Your task to perform on an android device: all mails in gmail Image 0: 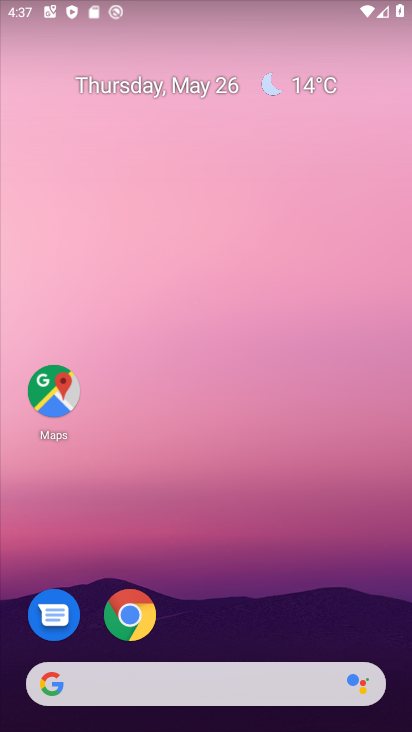
Step 0: drag from (267, 485) to (292, 144)
Your task to perform on an android device: all mails in gmail Image 1: 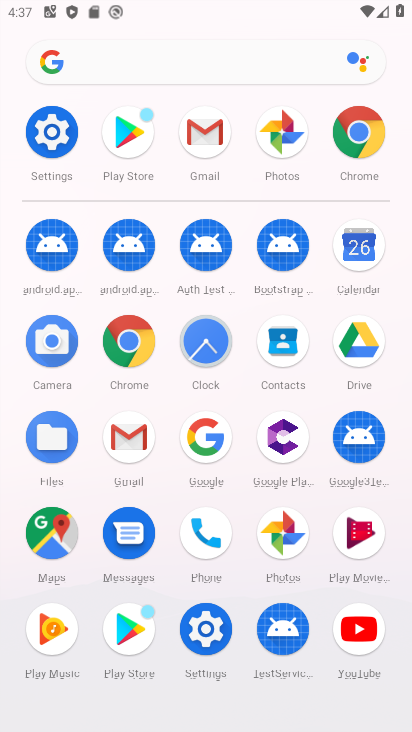
Step 1: click (211, 123)
Your task to perform on an android device: all mails in gmail Image 2: 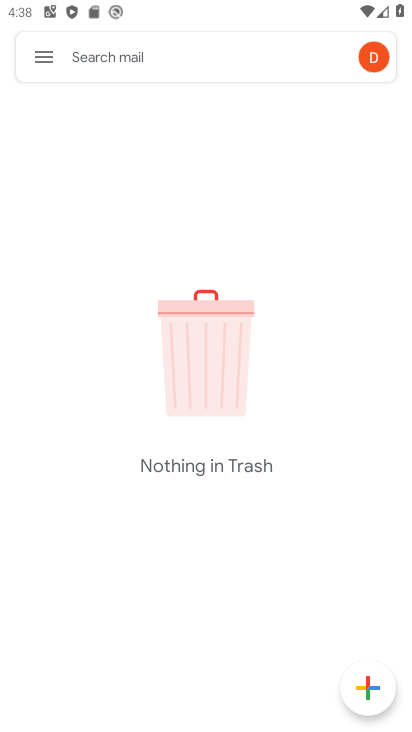
Step 2: click (48, 49)
Your task to perform on an android device: all mails in gmail Image 3: 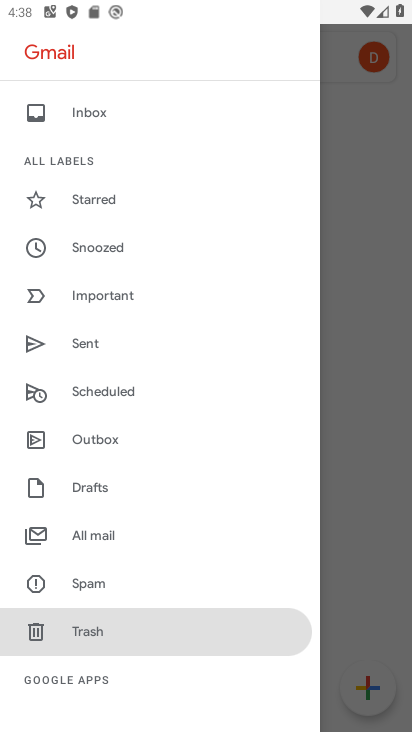
Step 3: click (71, 533)
Your task to perform on an android device: all mails in gmail Image 4: 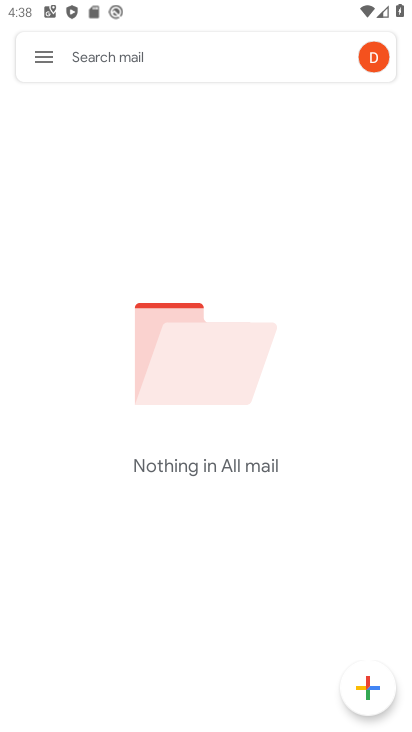
Step 4: task complete